Your task to perform on an android device: How do I get to the nearest Burger King? Image 0: 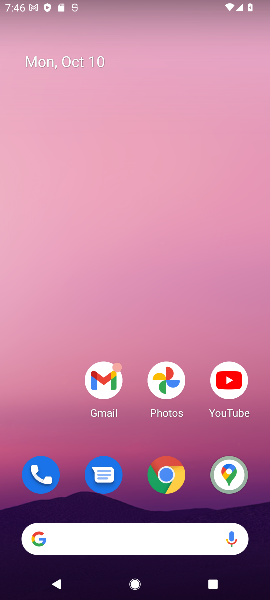
Step 0: click (171, 475)
Your task to perform on an android device: How do I get to the nearest Burger King? Image 1: 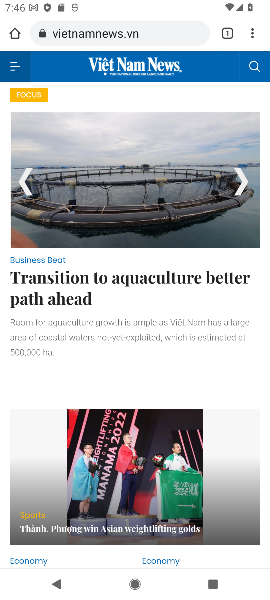
Step 1: click (116, 33)
Your task to perform on an android device: How do I get to the nearest Burger King? Image 2: 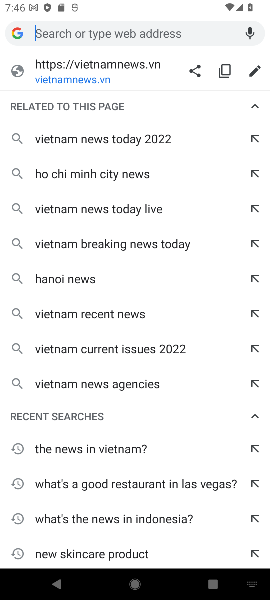
Step 2: drag from (77, 597) to (264, 599)
Your task to perform on an android device: How do I get to the nearest Burger King? Image 3: 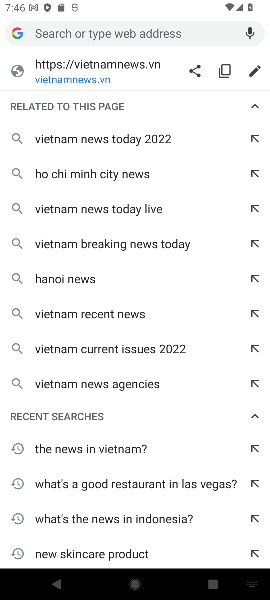
Step 3: type "How do I get to the nearest Burger King?"
Your task to perform on an android device: How do I get to the nearest Burger King? Image 4: 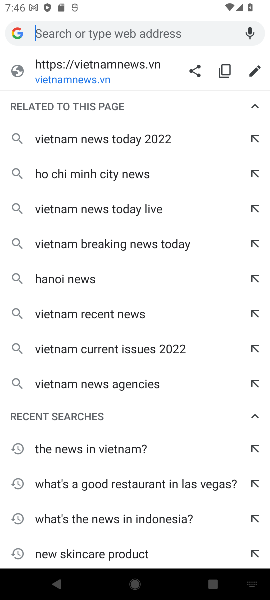
Step 4: click (165, 218)
Your task to perform on an android device: How do I get to the nearest Burger King? Image 5: 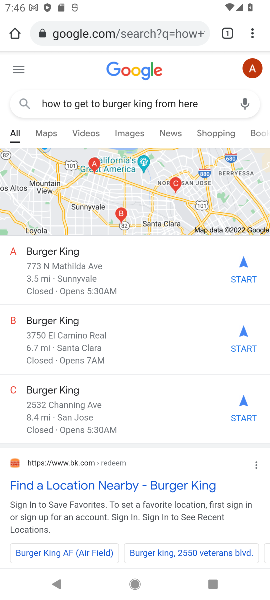
Step 5: task complete